Your task to perform on an android device: Go to Amazon Image 0: 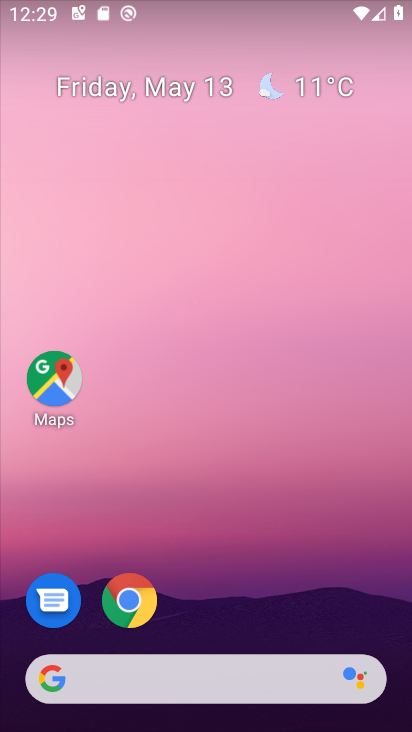
Step 0: click (116, 616)
Your task to perform on an android device: Go to Amazon Image 1: 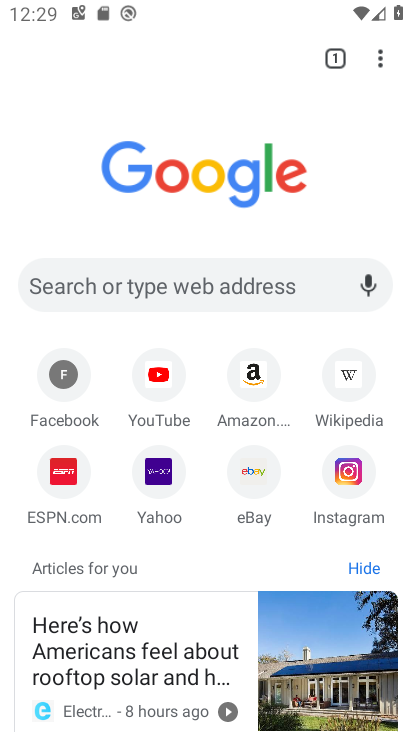
Step 1: click (248, 397)
Your task to perform on an android device: Go to Amazon Image 2: 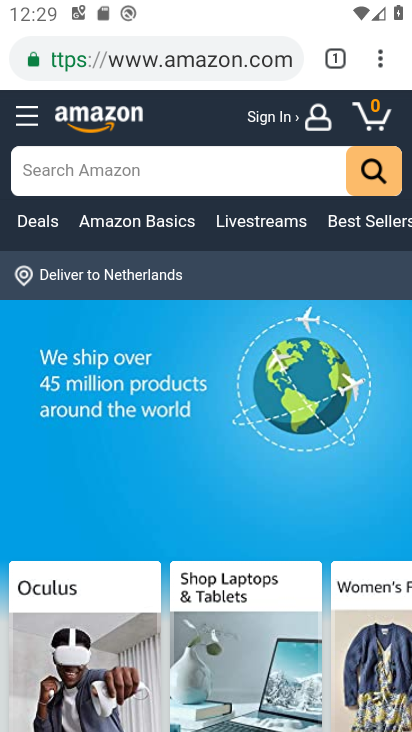
Step 2: task complete